Your task to perform on an android device: Open internet settings Image 0: 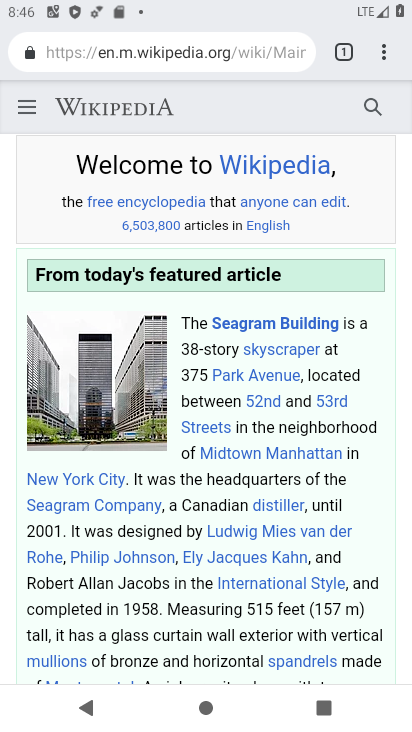
Step 0: press home button
Your task to perform on an android device: Open internet settings Image 1: 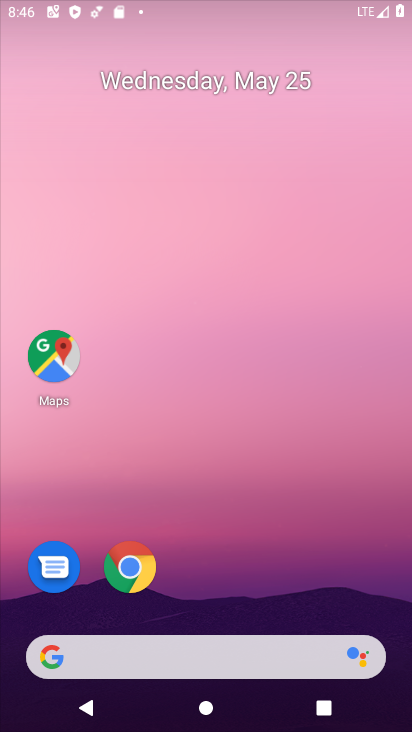
Step 1: drag from (218, 506) to (234, 51)
Your task to perform on an android device: Open internet settings Image 2: 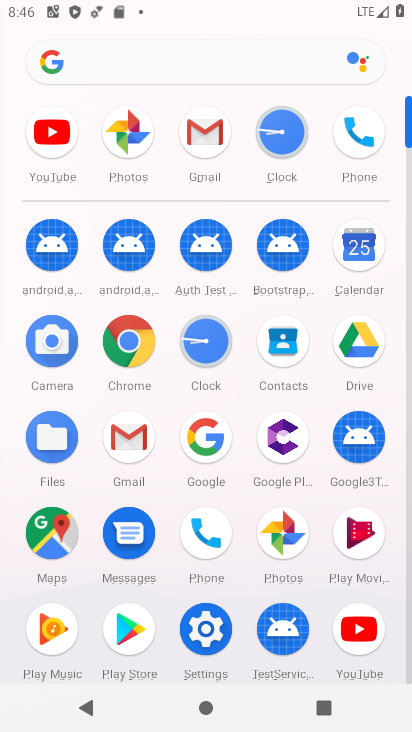
Step 2: click (204, 625)
Your task to perform on an android device: Open internet settings Image 3: 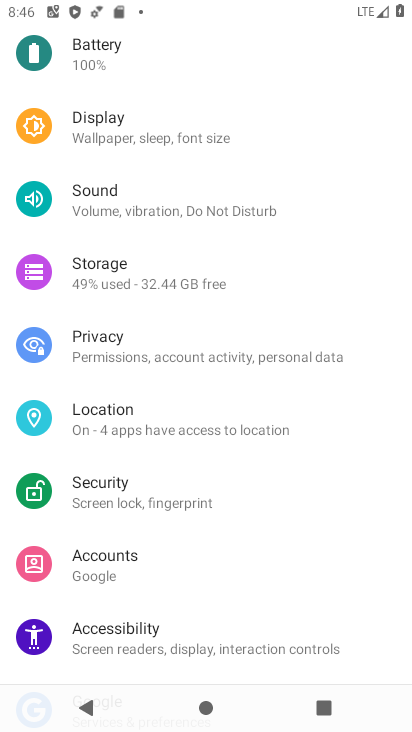
Step 3: drag from (225, 149) to (202, 618)
Your task to perform on an android device: Open internet settings Image 4: 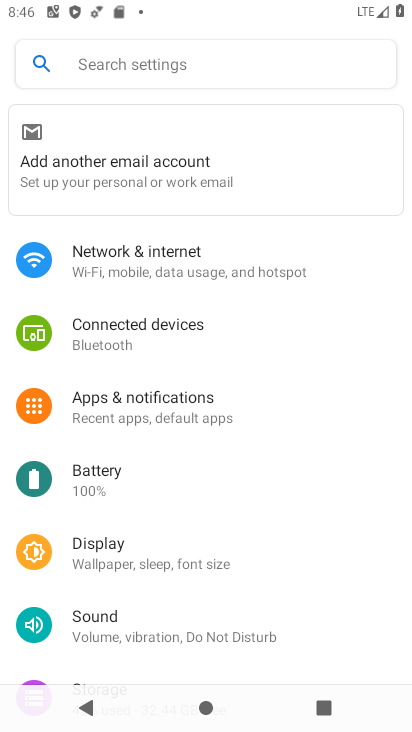
Step 4: click (213, 262)
Your task to perform on an android device: Open internet settings Image 5: 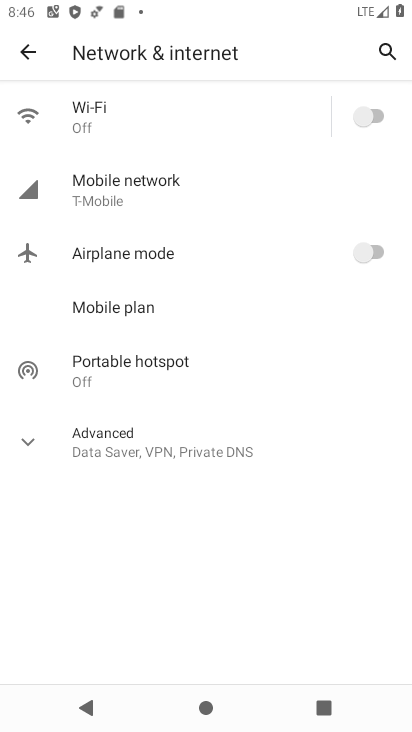
Step 5: task complete